Your task to perform on an android device: Go to display settings Image 0: 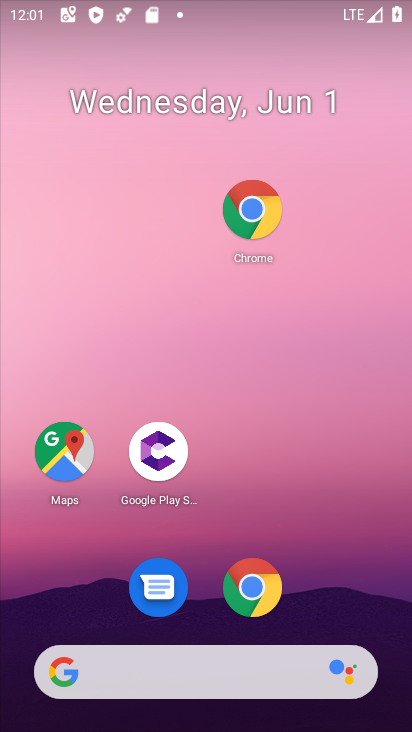
Step 0: drag from (374, 578) to (377, 135)
Your task to perform on an android device: Go to display settings Image 1: 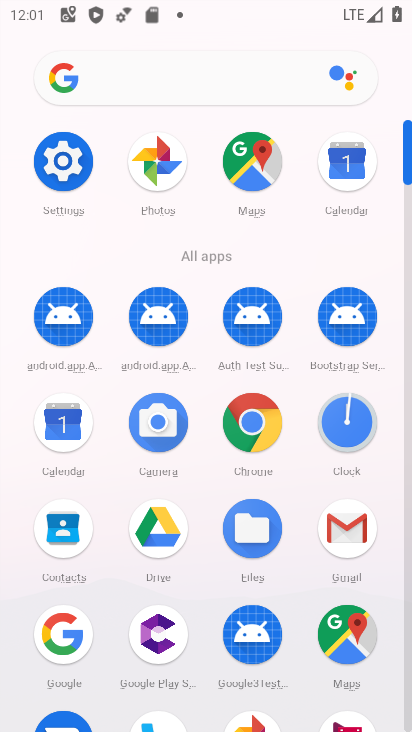
Step 1: click (73, 175)
Your task to perform on an android device: Go to display settings Image 2: 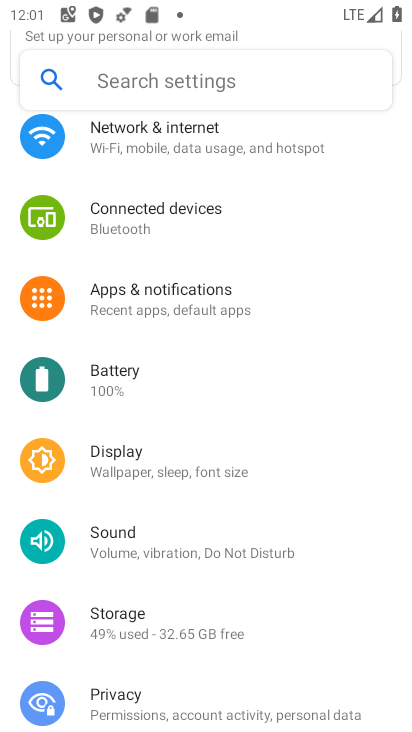
Step 2: click (142, 469)
Your task to perform on an android device: Go to display settings Image 3: 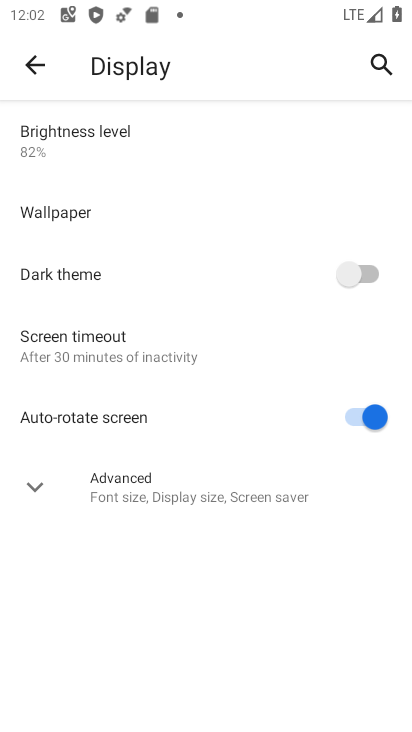
Step 3: task complete